Your task to perform on an android device: turn off javascript in the chrome app Image 0: 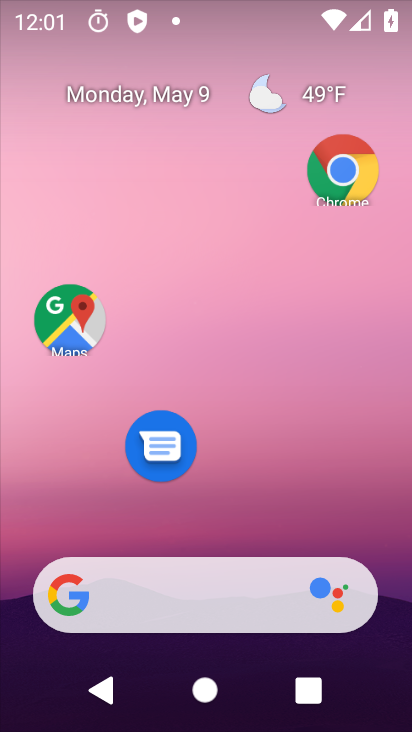
Step 0: click (360, 165)
Your task to perform on an android device: turn off javascript in the chrome app Image 1: 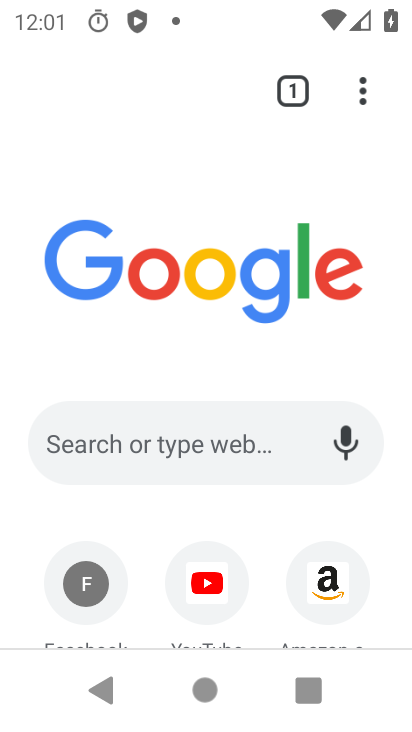
Step 1: click (361, 82)
Your task to perform on an android device: turn off javascript in the chrome app Image 2: 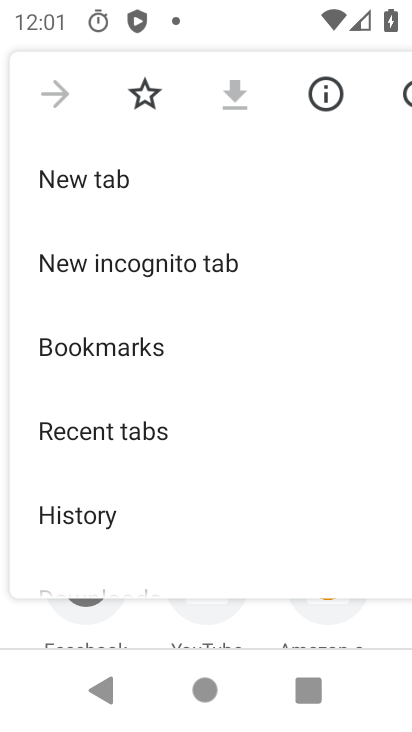
Step 2: drag from (192, 404) to (297, 182)
Your task to perform on an android device: turn off javascript in the chrome app Image 3: 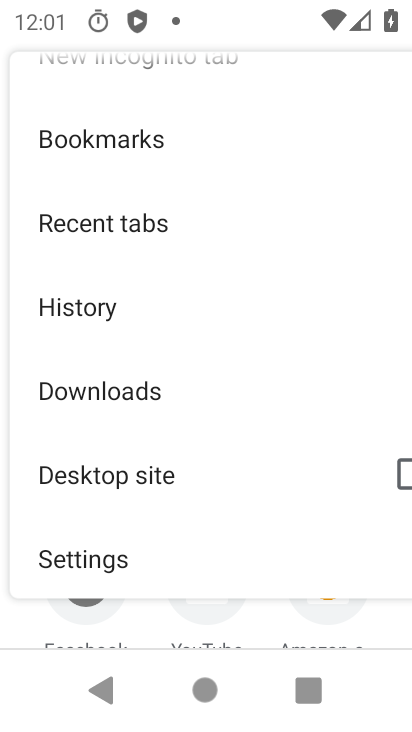
Step 3: click (181, 557)
Your task to perform on an android device: turn off javascript in the chrome app Image 4: 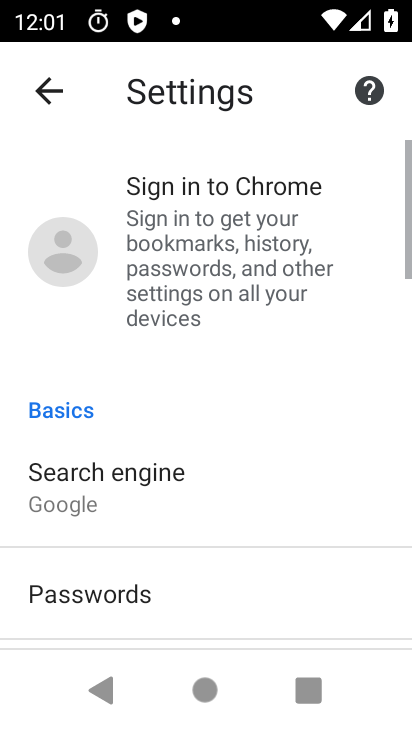
Step 4: drag from (180, 559) to (267, 295)
Your task to perform on an android device: turn off javascript in the chrome app Image 5: 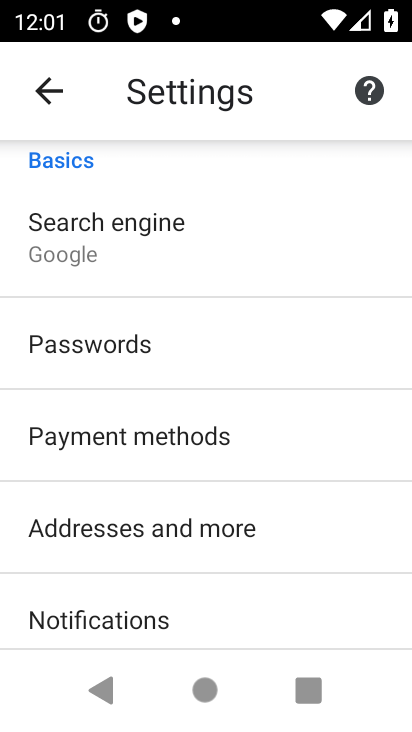
Step 5: drag from (149, 591) to (264, 383)
Your task to perform on an android device: turn off javascript in the chrome app Image 6: 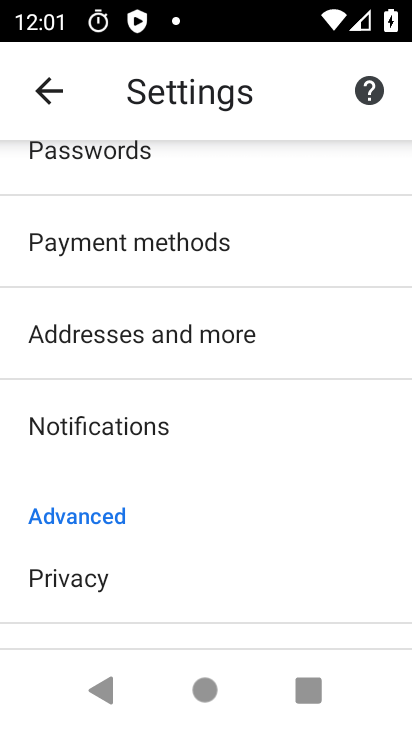
Step 6: drag from (165, 539) to (237, 322)
Your task to perform on an android device: turn off javascript in the chrome app Image 7: 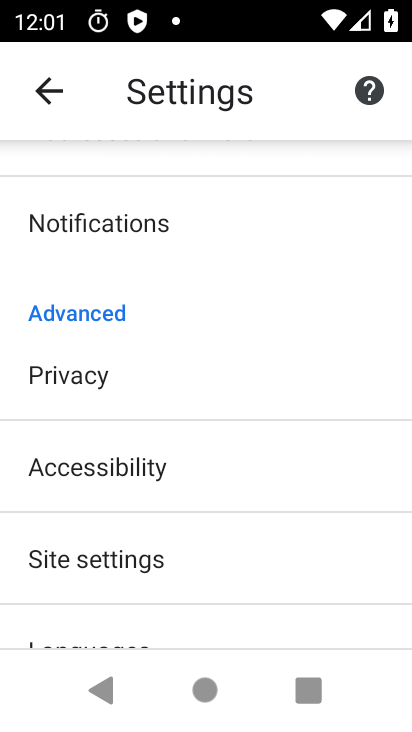
Step 7: drag from (49, 554) to (144, 312)
Your task to perform on an android device: turn off javascript in the chrome app Image 8: 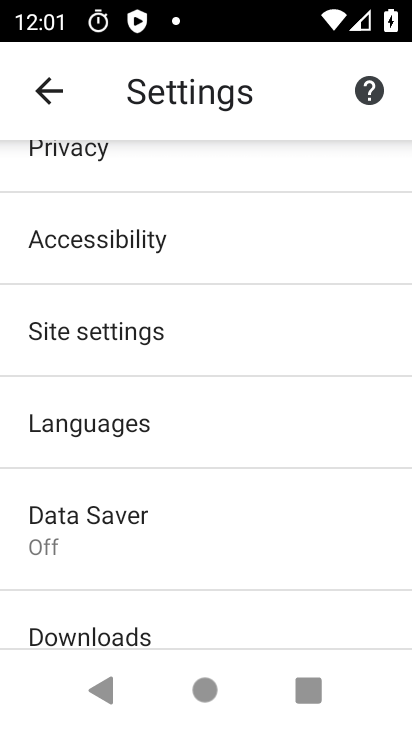
Step 8: click (109, 322)
Your task to perform on an android device: turn off javascript in the chrome app Image 9: 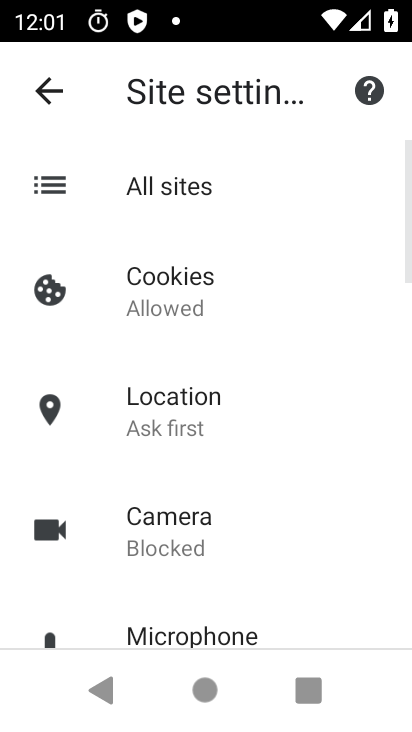
Step 9: drag from (80, 495) to (145, 282)
Your task to perform on an android device: turn off javascript in the chrome app Image 10: 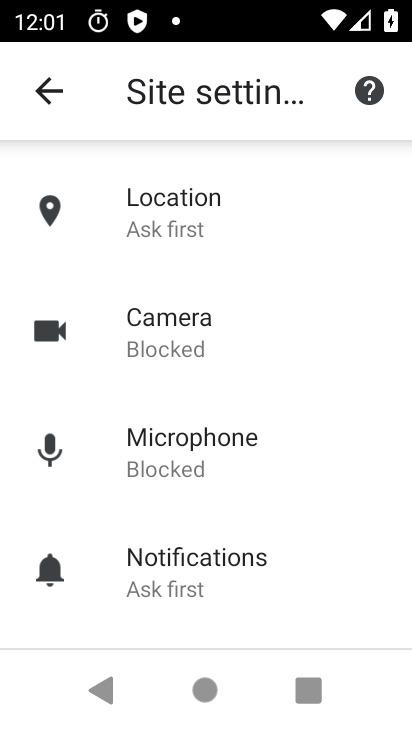
Step 10: drag from (23, 692) to (114, 481)
Your task to perform on an android device: turn off javascript in the chrome app Image 11: 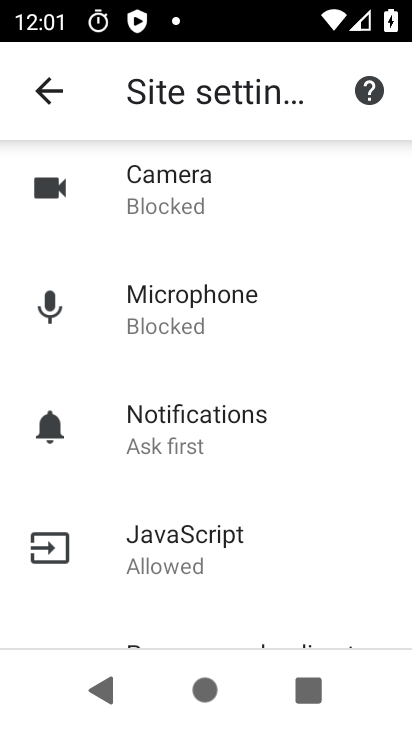
Step 11: click (144, 538)
Your task to perform on an android device: turn off javascript in the chrome app Image 12: 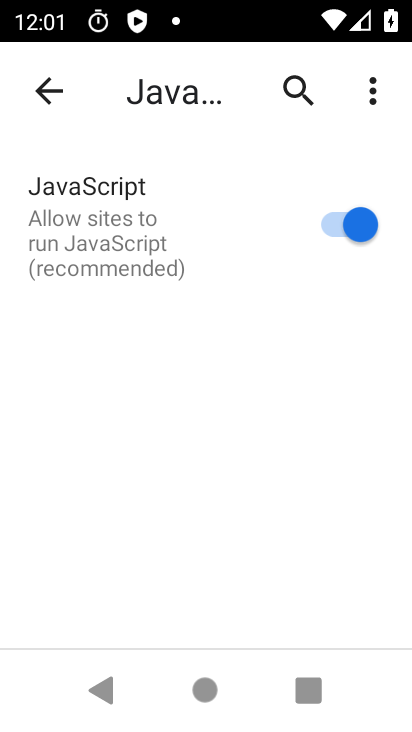
Step 12: click (343, 221)
Your task to perform on an android device: turn off javascript in the chrome app Image 13: 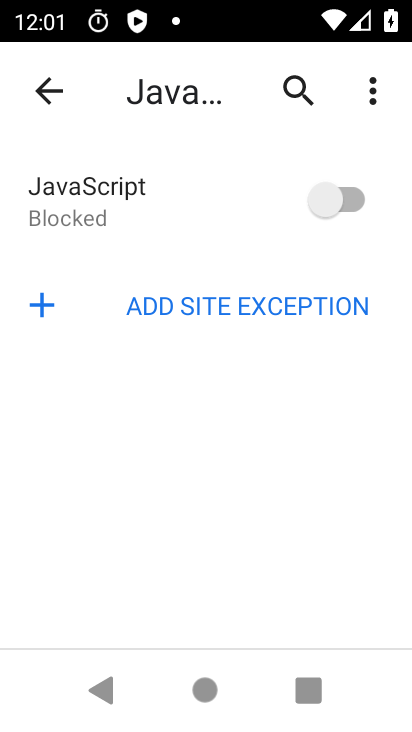
Step 13: task complete